Your task to perform on an android device: Find coffee shops on Maps Image 0: 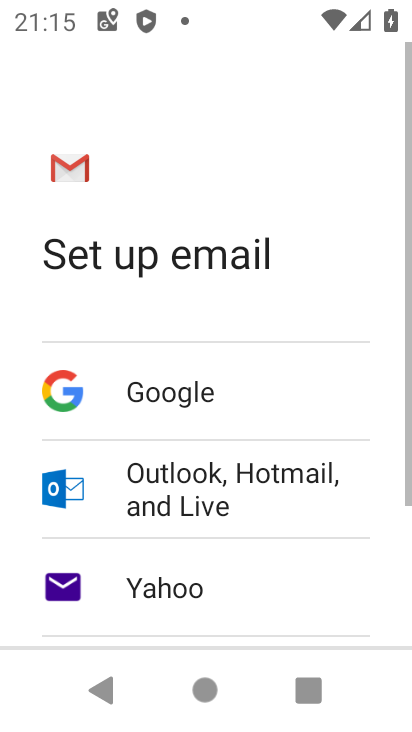
Step 0: press home button
Your task to perform on an android device: Find coffee shops on Maps Image 1: 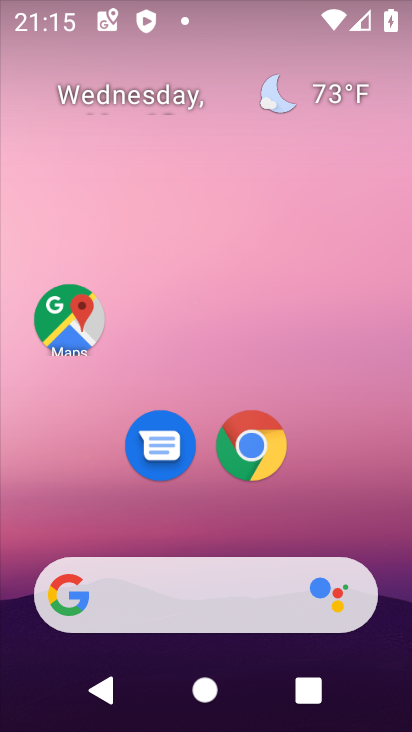
Step 1: click (64, 309)
Your task to perform on an android device: Find coffee shops on Maps Image 2: 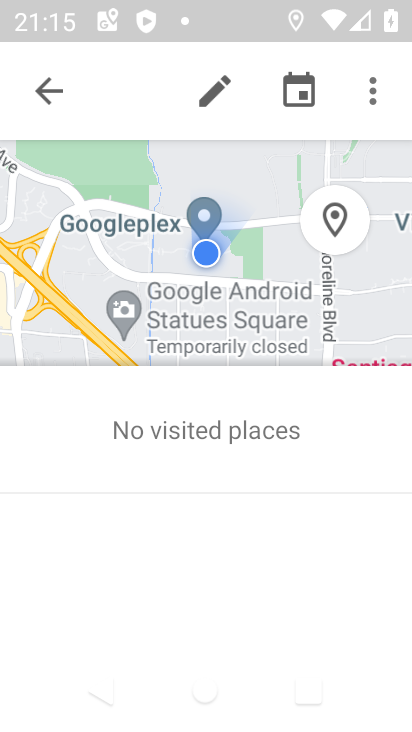
Step 2: click (53, 93)
Your task to perform on an android device: Find coffee shops on Maps Image 3: 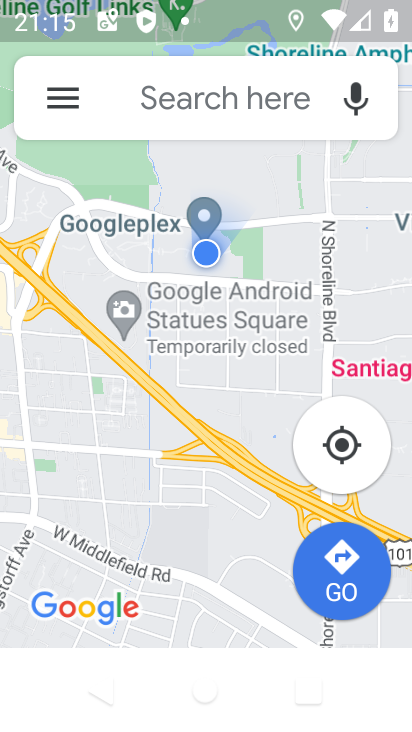
Step 3: click (203, 96)
Your task to perform on an android device: Find coffee shops on Maps Image 4: 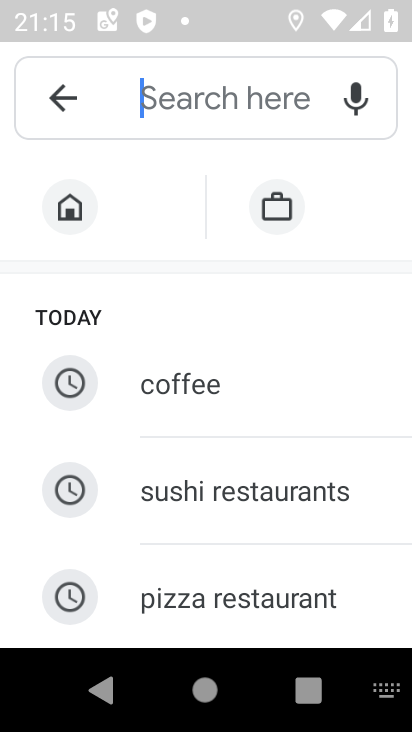
Step 4: click (197, 394)
Your task to perform on an android device: Find coffee shops on Maps Image 5: 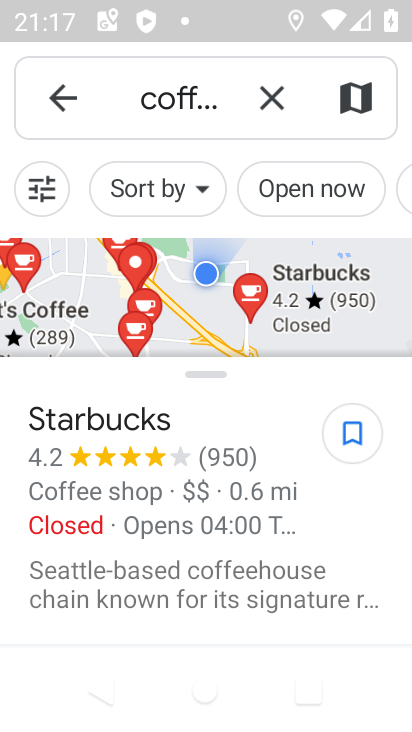
Step 5: task complete